Your task to perform on an android device: delete the emails in spam in the gmail app Image 0: 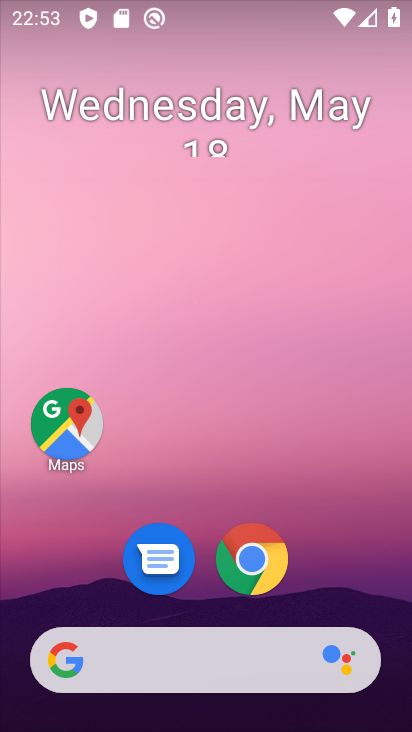
Step 0: drag from (296, 567) to (260, 0)
Your task to perform on an android device: delete the emails in spam in the gmail app Image 1: 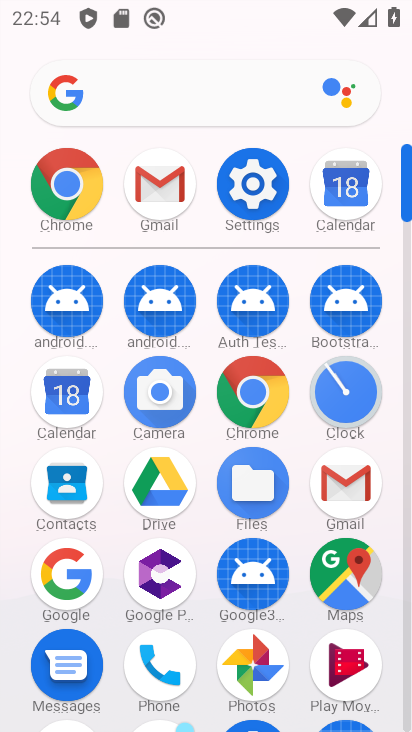
Step 1: click (152, 201)
Your task to perform on an android device: delete the emails in spam in the gmail app Image 2: 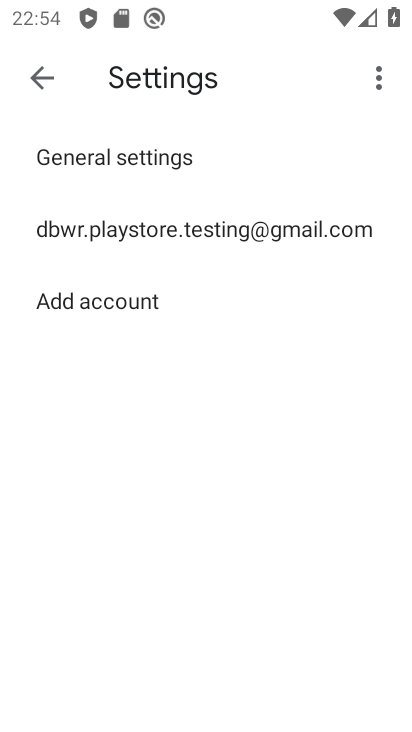
Step 2: click (155, 235)
Your task to perform on an android device: delete the emails in spam in the gmail app Image 3: 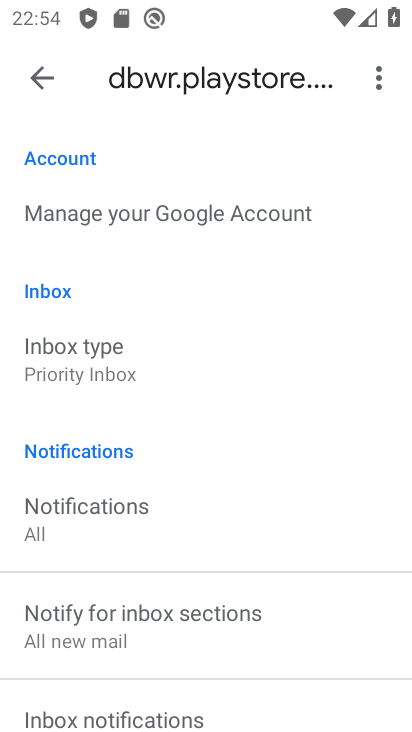
Step 3: click (41, 75)
Your task to perform on an android device: delete the emails in spam in the gmail app Image 4: 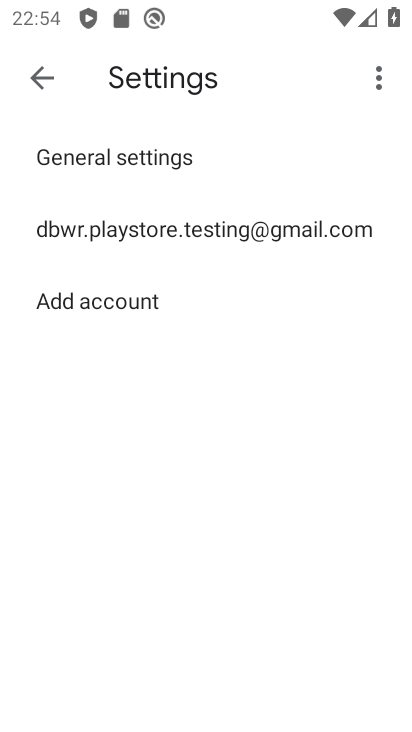
Step 4: click (41, 75)
Your task to perform on an android device: delete the emails in spam in the gmail app Image 5: 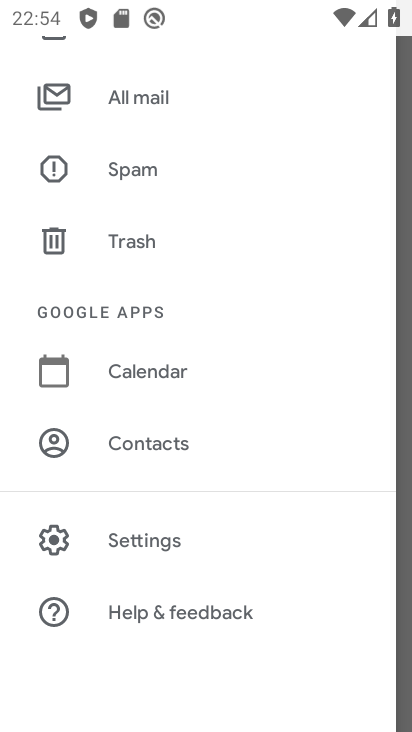
Step 5: click (174, 111)
Your task to perform on an android device: delete the emails in spam in the gmail app Image 6: 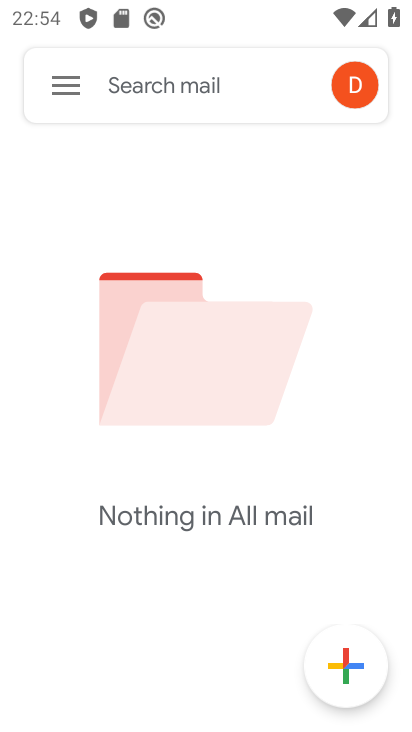
Step 6: click (46, 82)
Your task to perform on an android device: delete the emails in spam in the gmail app Image 7: 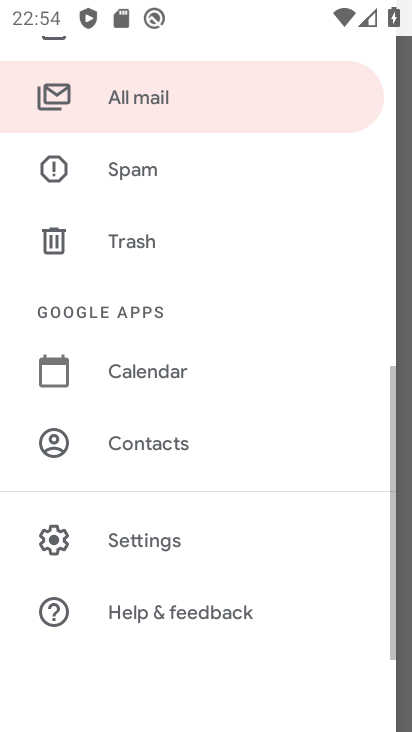
Step 7: click (126, 197)
Your task to perform on an android device: delete the emails in spam in the gmail app Image 8: 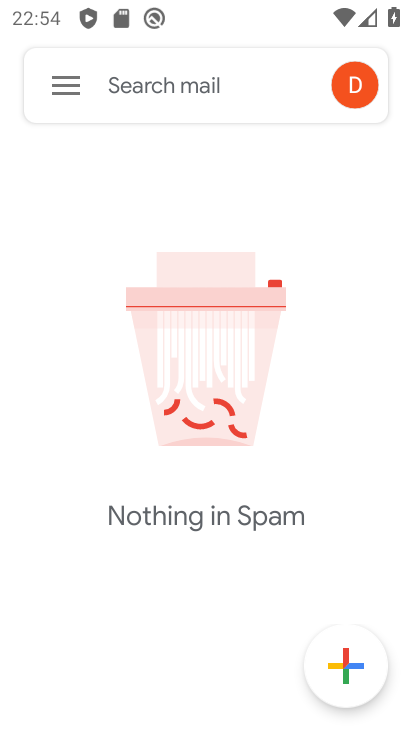
Step 8: task complete